Your task to perform on an android device: turn on improve location accuracy Image 0: 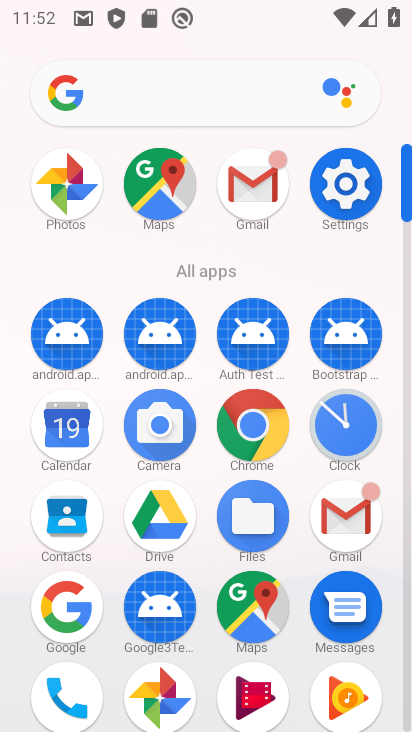
Step 0: click (349, 206)
Your task to perform on an android device: turn on improve location accuracy Image 1: 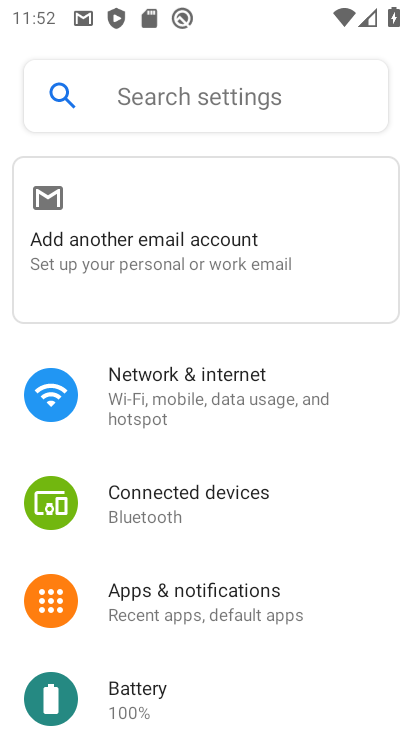
Step 1: drag from (337, 618) to (342, 526)
Your task to perform on an android device: turn on improve location accuracy Image 2: 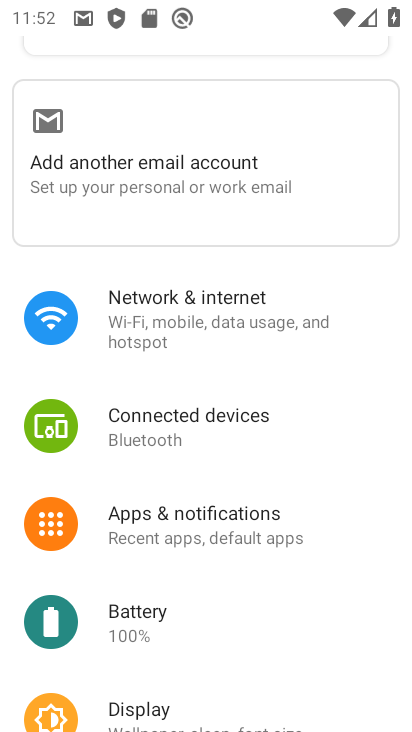
Step 2: drag from (347, 589) to (347, 512)
Your task to perform on an android device: turn on improve location accuracy Image 3: 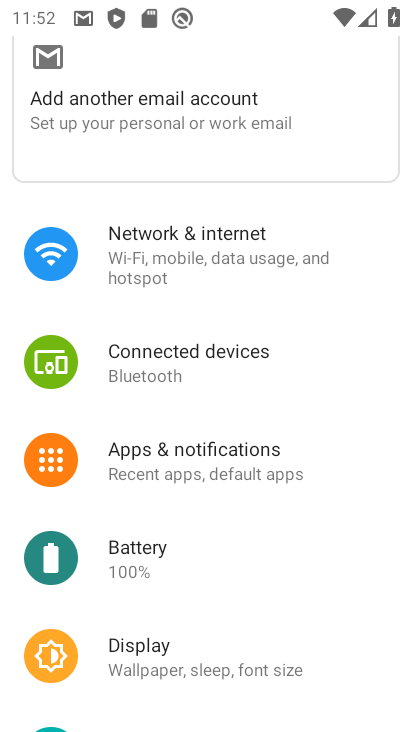
Step 3: drag from (351, 608) to (357, 522)
Your task to perform on an android device: turn on improve location accuracy Image 4: 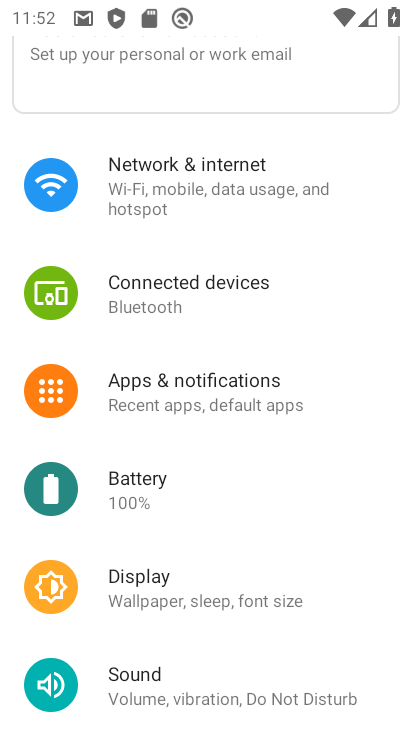
Step 4: drag from (346, 627) to (351, 533)
Your task to perform on an android device: turn on improve location accuracy Image 5: 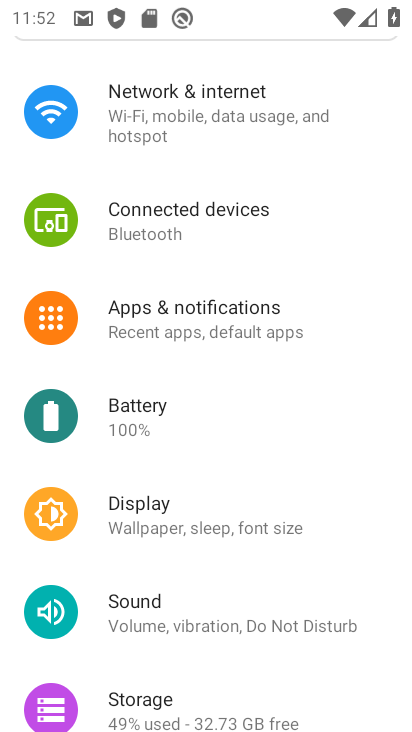
Step 5: drag from (360, 664) to (366, 530)
Your task to perform on an android device: turn on improve location accuracy Image 6: 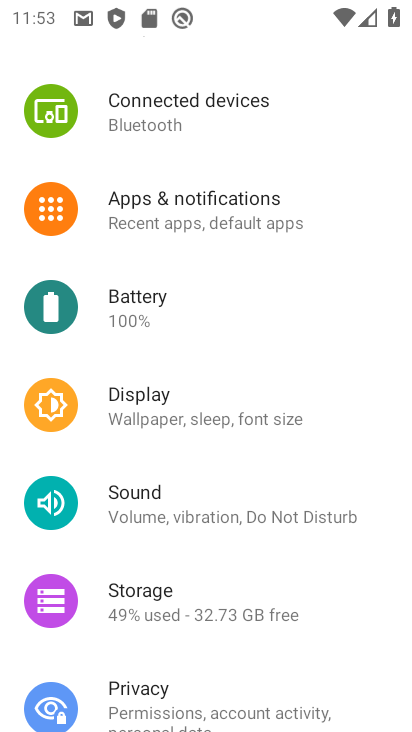
Step 6: drag from (354, 631) to (354, 517)
Your task to perform on an android device: turn on improve location accuracy Image 7: 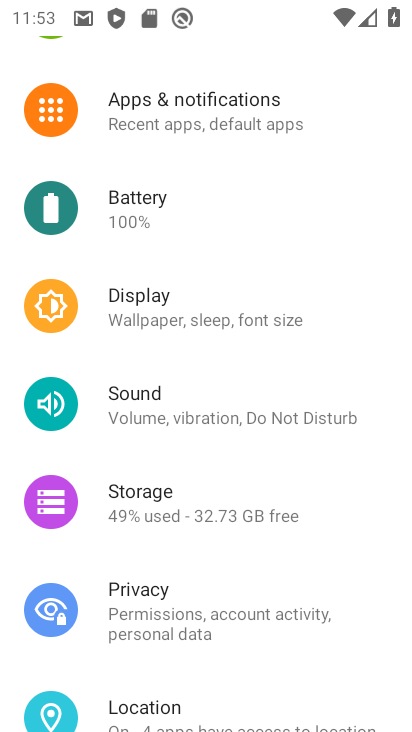
Step 7: drag from (362, 660) to (365, 510)
Your task to perform on an android device: turn on improve location accuracy Image 8: 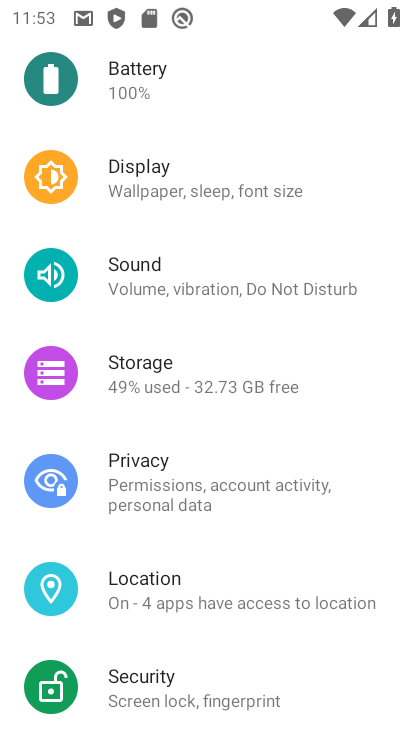
Step 8: click (327, 588)
Your task to perform on an android device: turn on improve location accuracy Image 9: 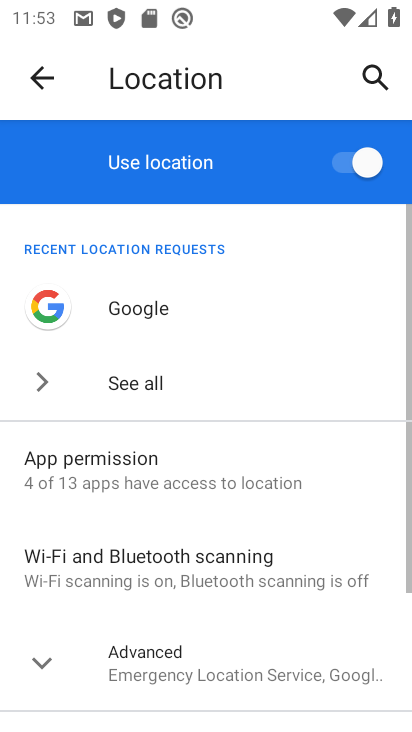
Step 9: click (305, 649)
Your task to perform on an android device: turn on improve location accuracy Image 10: 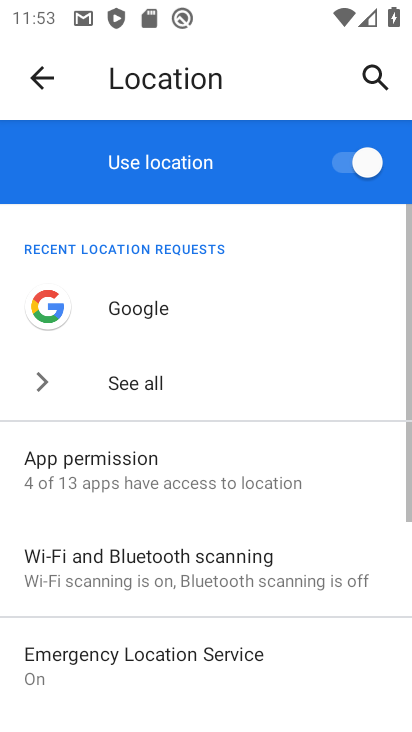
Step 10: drag from (305, 649) to (310, 540)
Your task to perform on an android device: turn on improve location accuracy Image 11: 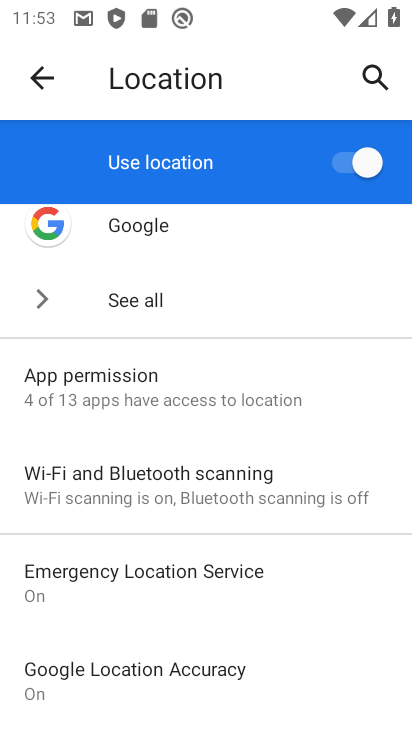
Step 11: drag from (314, 616) to (323, 555)
Your task to perform on an android device: turn on improve location accuracy Image 12: 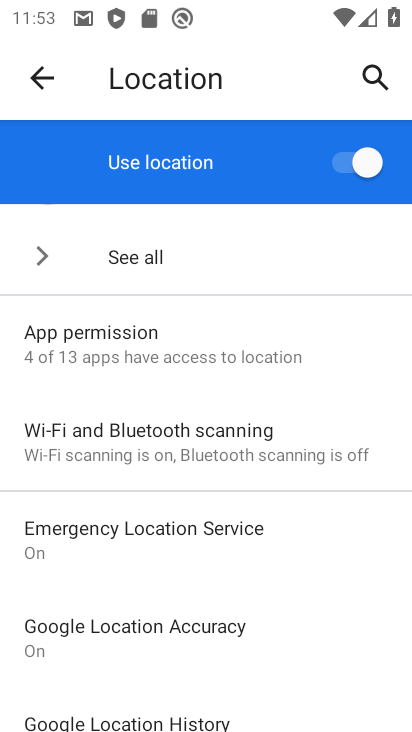
Step 12: drag from (338, 672) to (345, 527)
Your task to perform on an android device: turn on improve location accuracy Image 13: 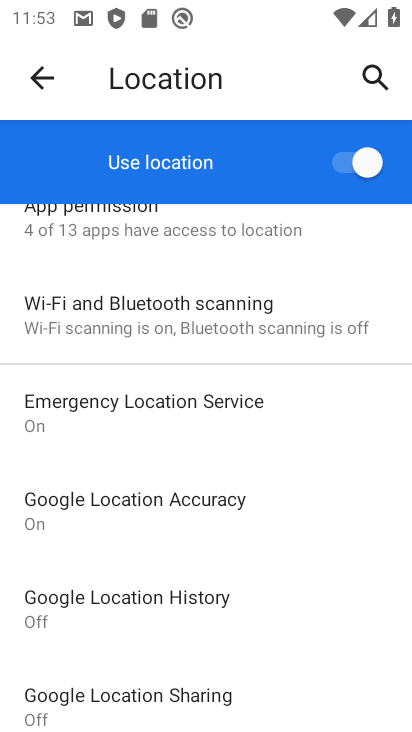
Step 13: click (269, 517)
Your task to perform on an android device: turn on improve location accuracy Image 14: 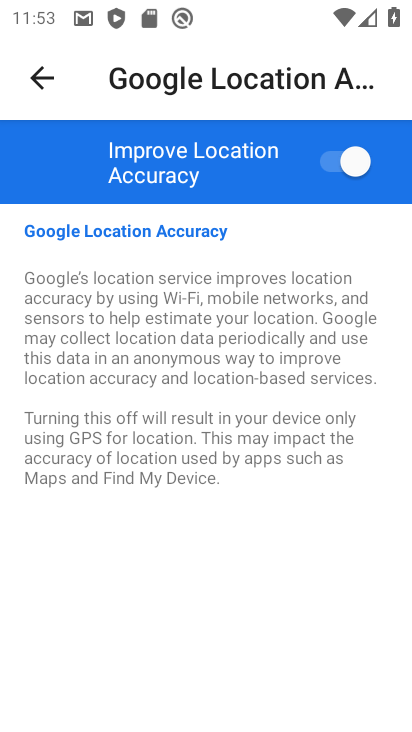
Step 14: task complete